Your task to perform on an android device: star an email in the gmail app Image 0: 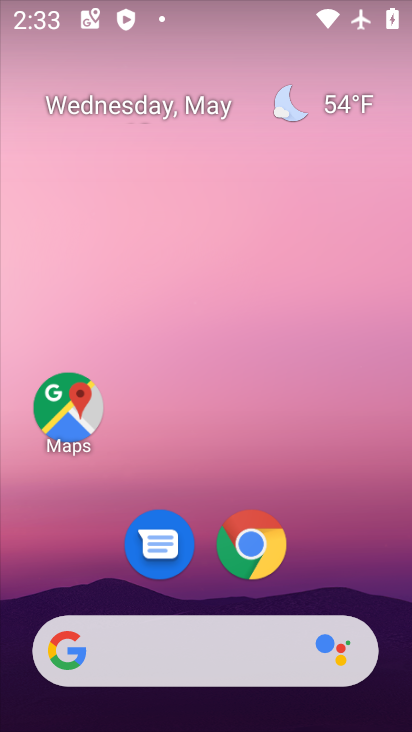
Step 0: drag from (342, 573) to (289, 175)
Your task to perform on an android device: star an email in the gmail app Image 1: 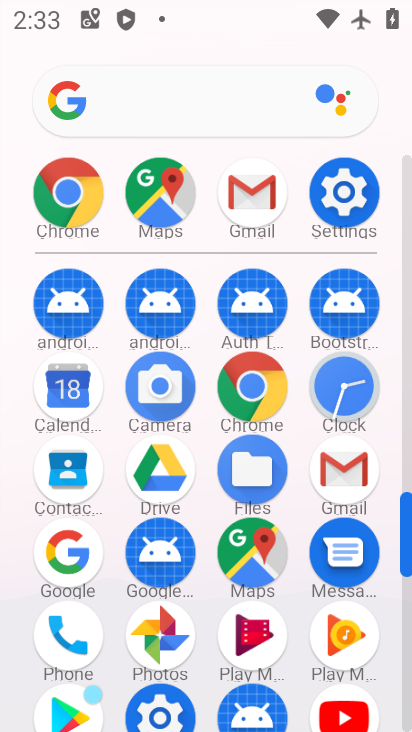
Step 1: click (252, 203)
Your task to perform on an android device: star an email in the gmail app Image 2: 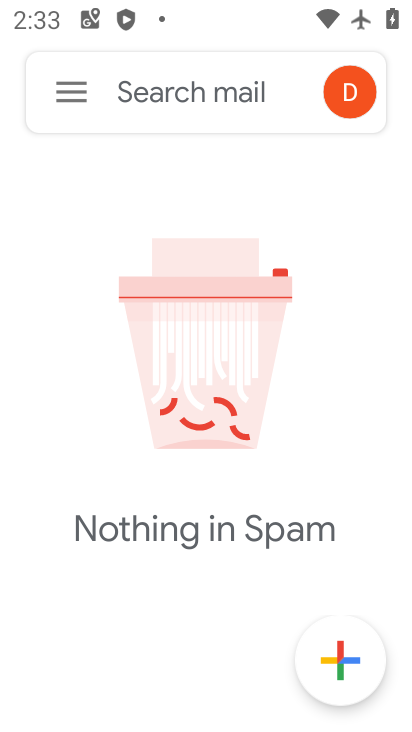
Step 2: click (72, 116)
Your task to perform on an android device: star an email in the gmail app Image 3: 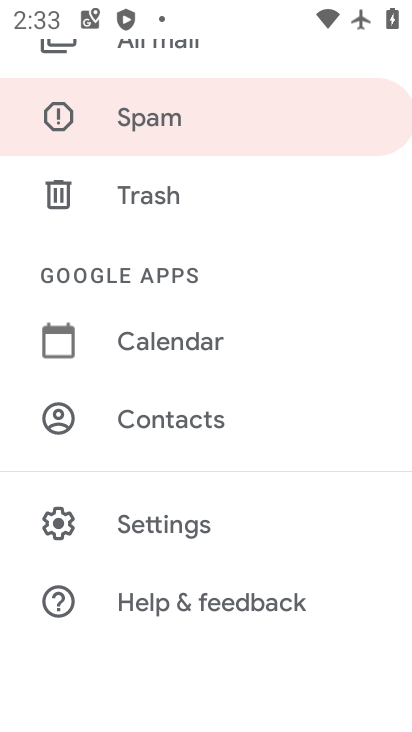
Step 3: click (109, 389)
Your task to perform on an android device: star an email in the gmail app Image 4: 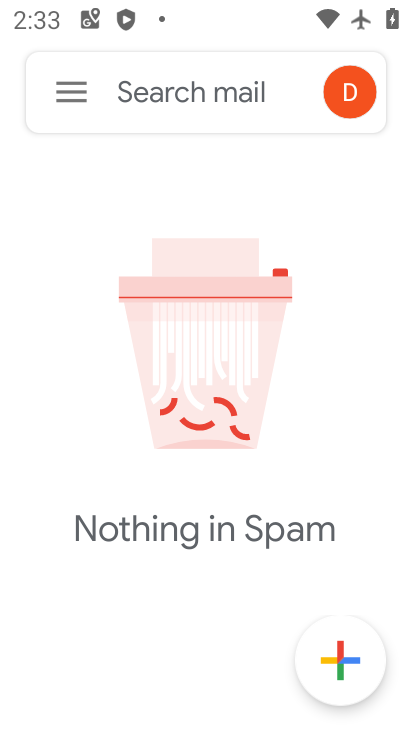
Step 4: task complete